Your task to perform on an android device: Open Yahoo.com Image 0: 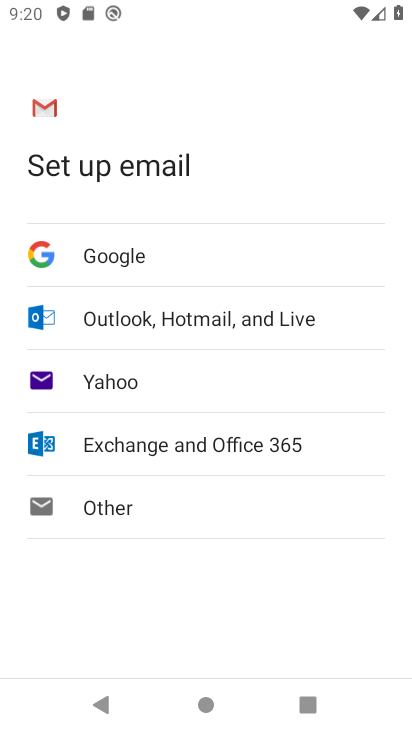
Step 0: press home button
Your task to perform on an android device: Open Yahoo.com Image 1: 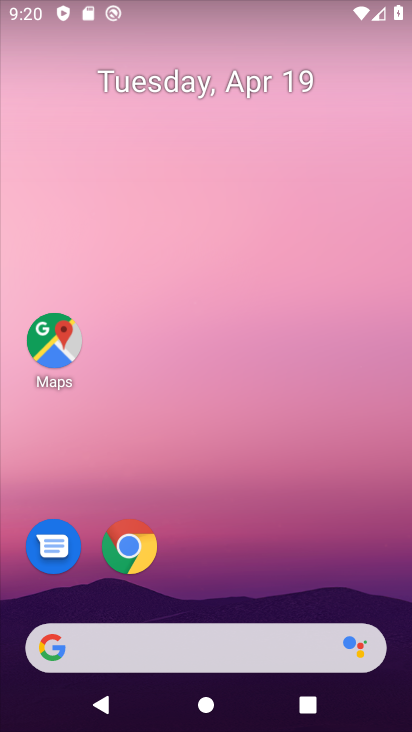
Step 1: click (128, 545)
Your task to perform on an android device: Open Yahoo.com Image 2: 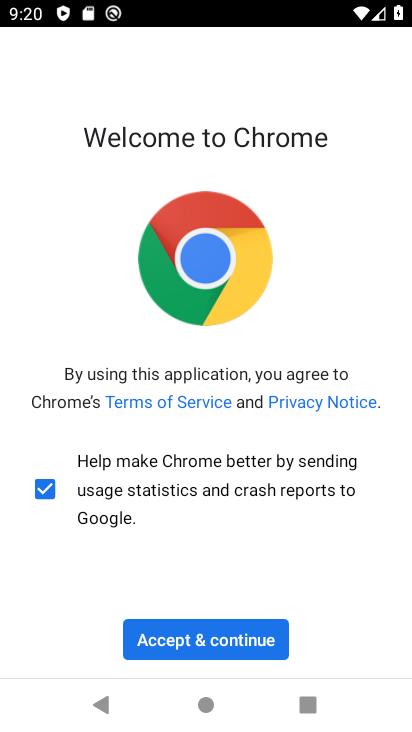
Step 2: click (201, 641)
Your task to perform on an android device: Open Yahoo.com Image 3: 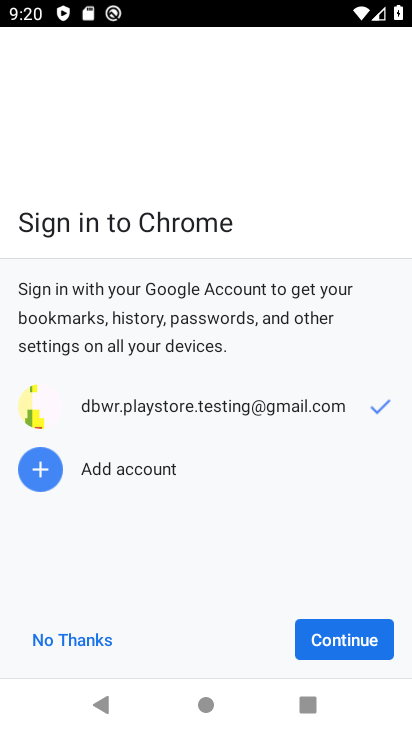
Step 3: click (335, 633)
Your task to perform on an android device: Open Yahoo.com Image 4: 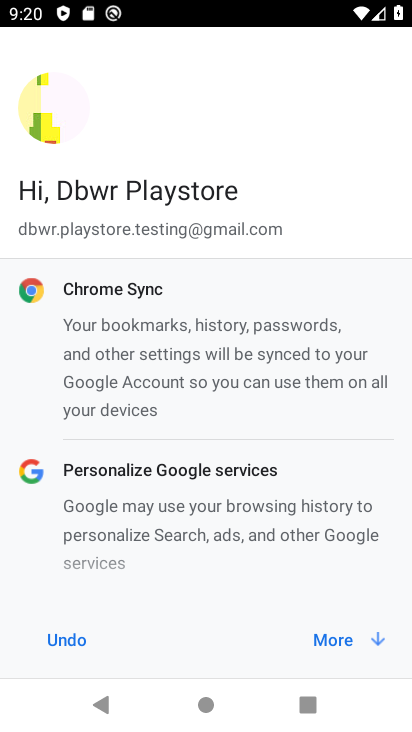
Step 4: click (335, 633)
Your task to perform on an android device: Open Yahoo.com Image 5: 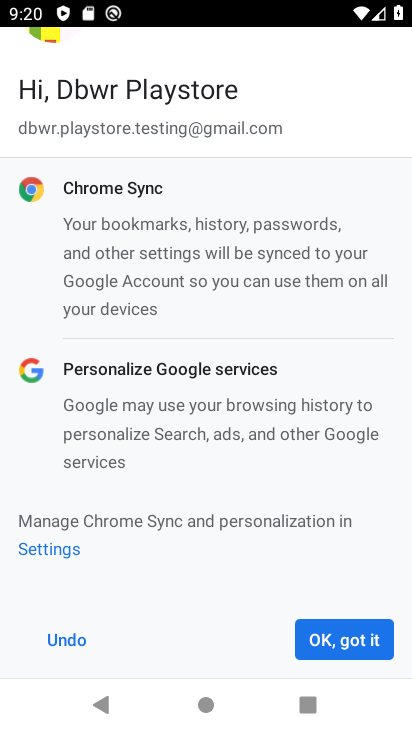
Step 5: click (335, 633)
Your task to perform on an android device: Open Yahoo.com Image 6: 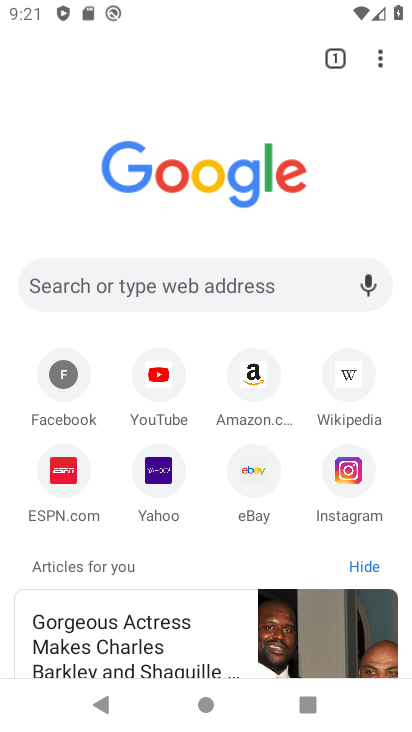
Step 6: click (158, 469)
Your task to perform on an android device: Open Yahoo.com Image 7: 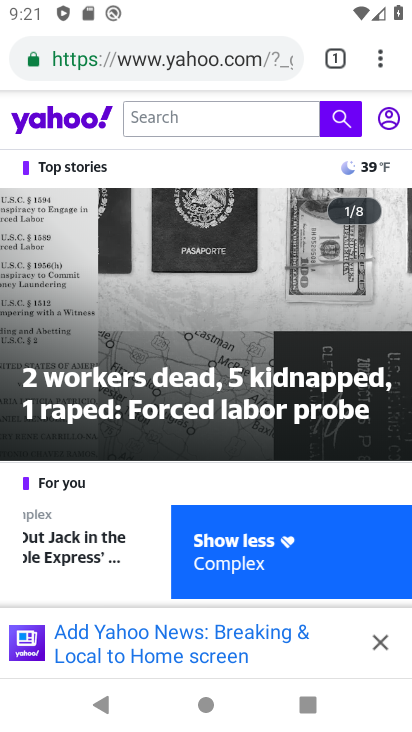
Step 7: task complete